Your task to perform on an android device: empty trash in google photos Image 0: 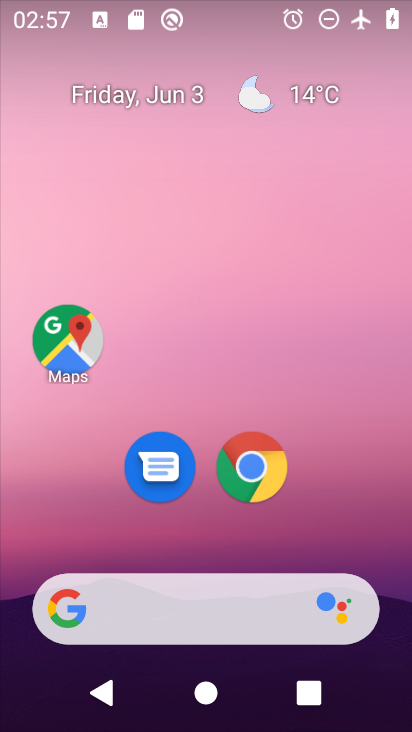
Step 0: drag from (396, 610) to (347, 209)
Your task to perform on an android device: empty trash in google photos Image 1: 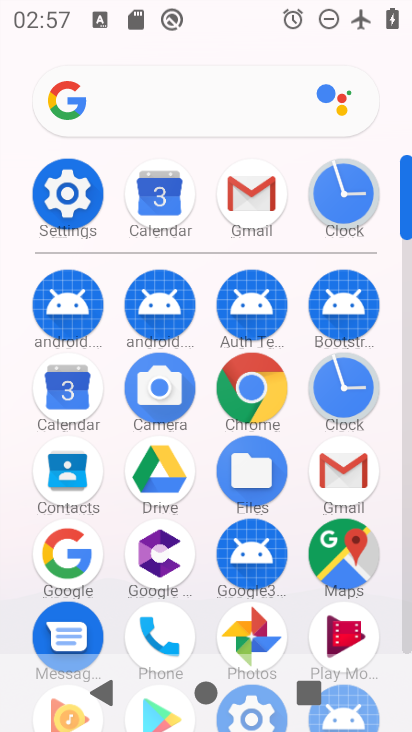
Step 1: click (405, 617)
Your task to perform on an android device: empty trash in google photos Image 2: 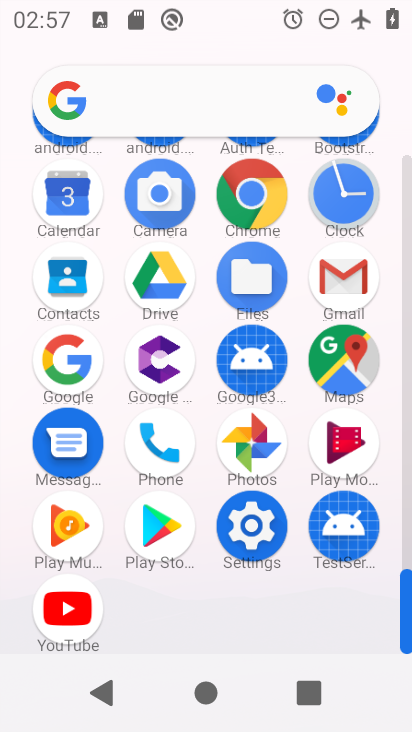
Step 2: click (252, 444)
Your task to perform on an android device: empty trash in google photos Image 3: 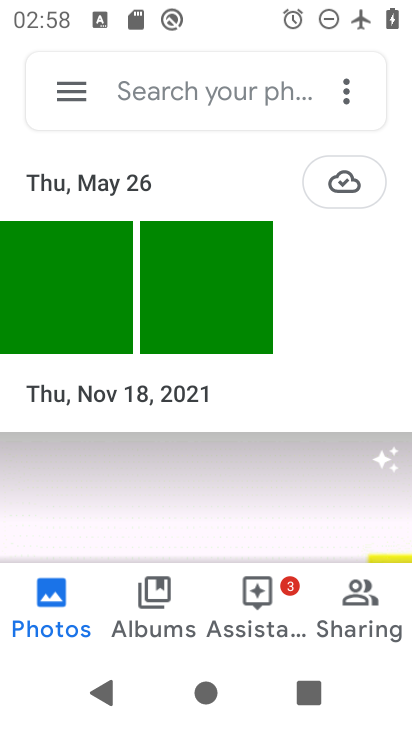
Step 3: click (70, 91)
Your task to perform on an android device: empty trash in google photos Image 4: 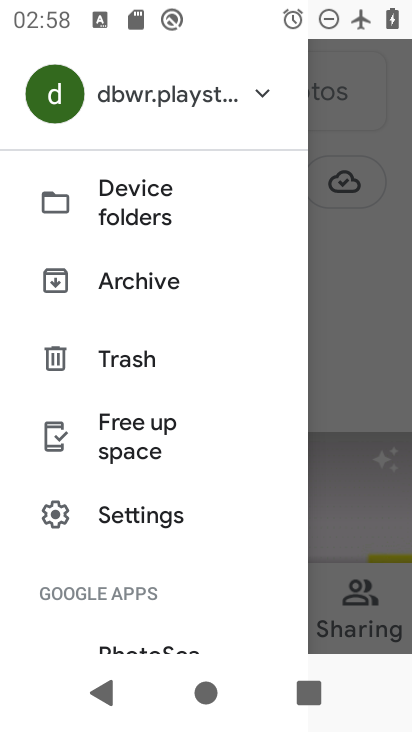
Step 4: click (114, 356)
Your task to perform on an android device: empty trash in google photos Image 5: 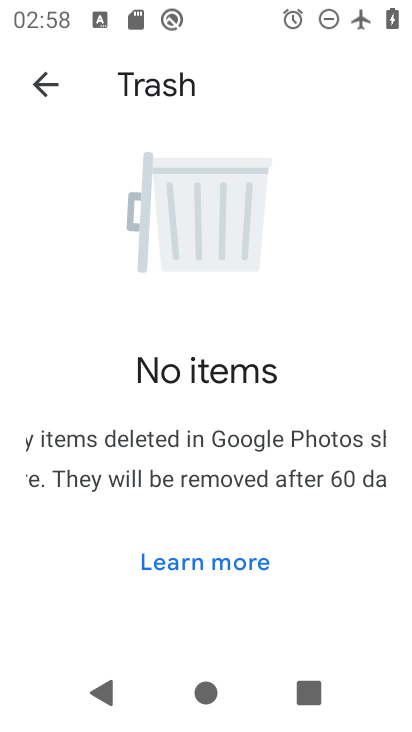
Step 5: task complete